Your task to perform on an android device: turn off data saver in the chrome app Image 0: 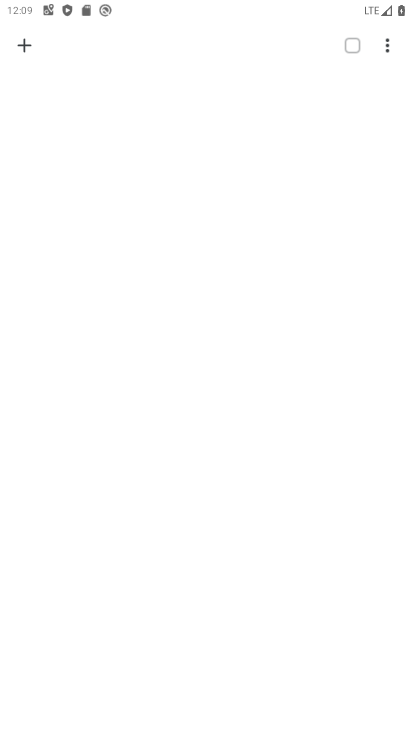
Step 0: press home button
Your task to perform on an android device: turn off data saver in the chrome app Image 1: 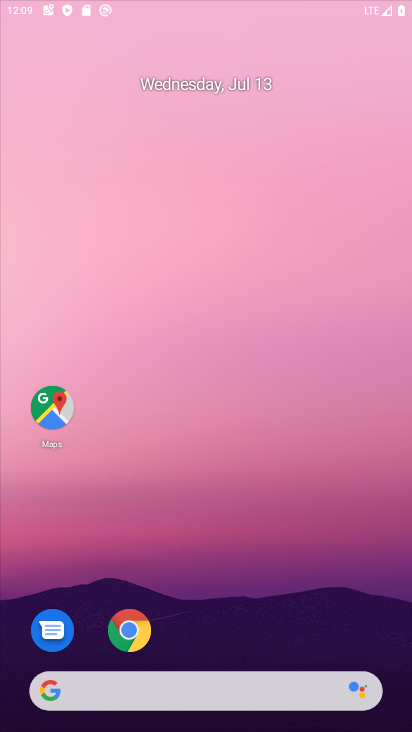
Step 1: drag from (391, 697) to (266, 9)
Your task to perform on an android device: turn off data saver in the chrome app Image 2: 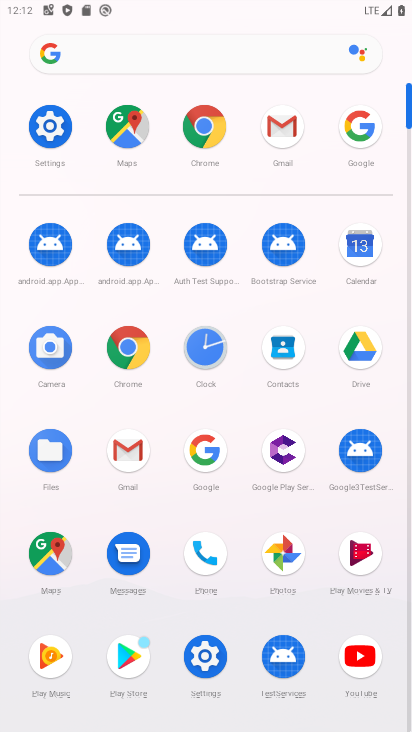
Step 2: click (116, 344)
Your task to perform on an android device: turn off data saver in the chrome app Image 3: 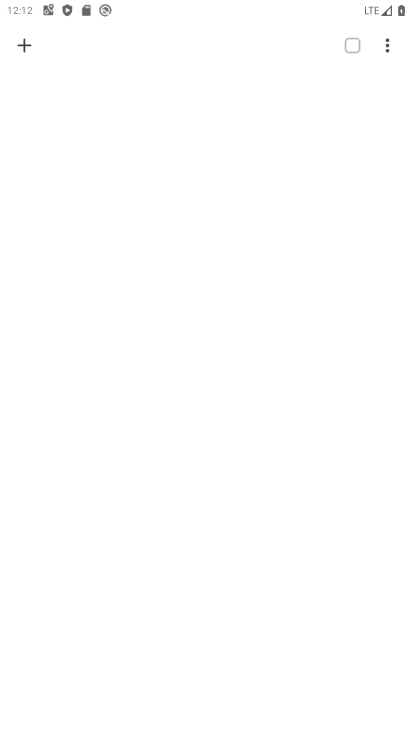
Step 3: click (381, 44)
Your task to perform on an android device: turn off data saver in the chrome app Image 4: 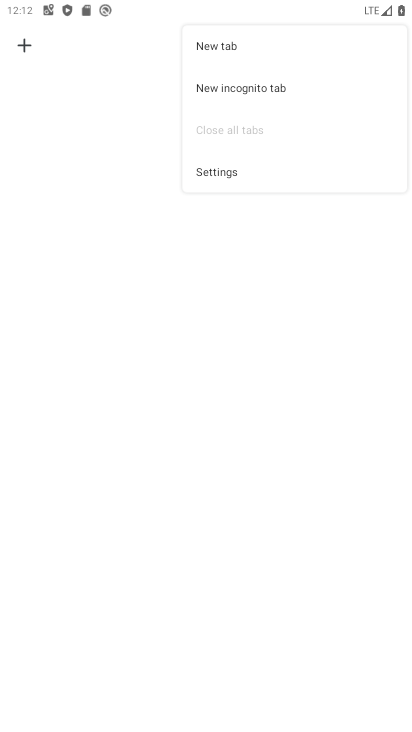
Step 4: click (224, 172)
Your task to perform on an android device: turn off data saver in the chrome app Image 5: 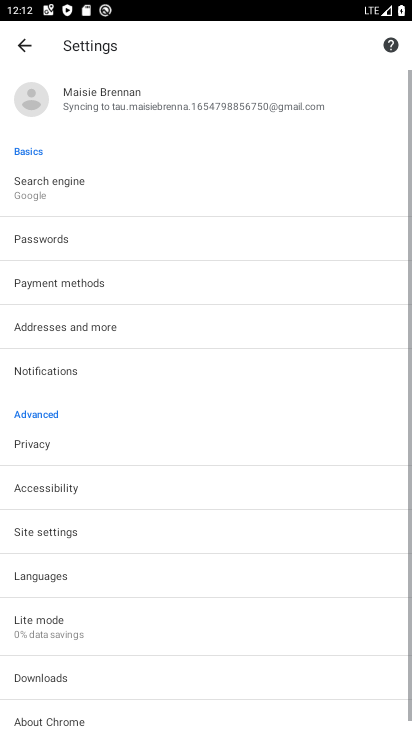
Step 5: click (71, 639)
Your task to perform on an android device: turn off data saver in the chrome app Image 6: 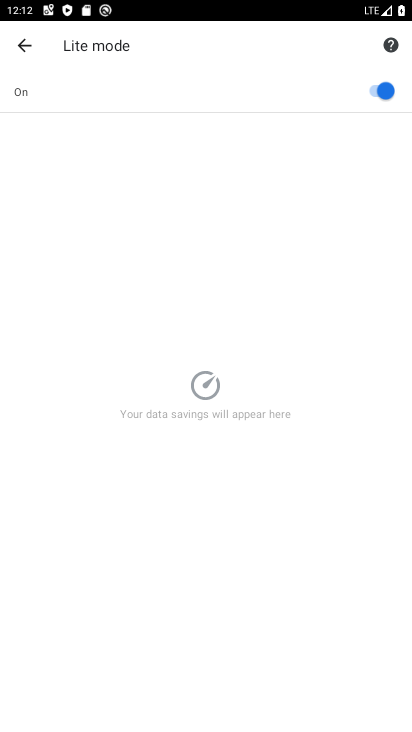
Step 6: click (356, 81)
Your task to perform on an android device: turn off data saver in the chrome app Image 7: 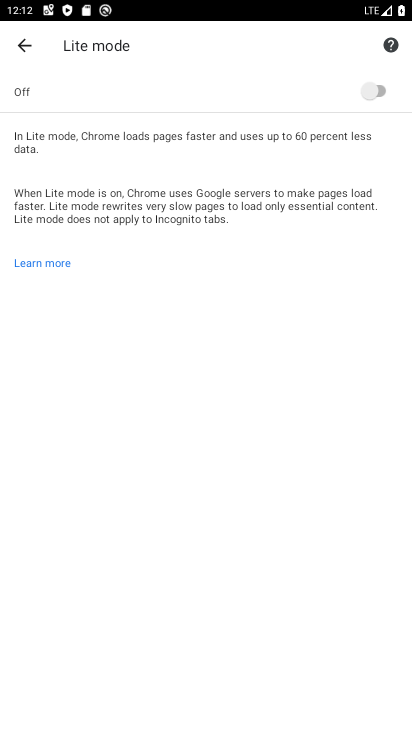
Step 7: task complete